Your task to perform on an android device: Search for sushi restaurants on Maps Image 0: 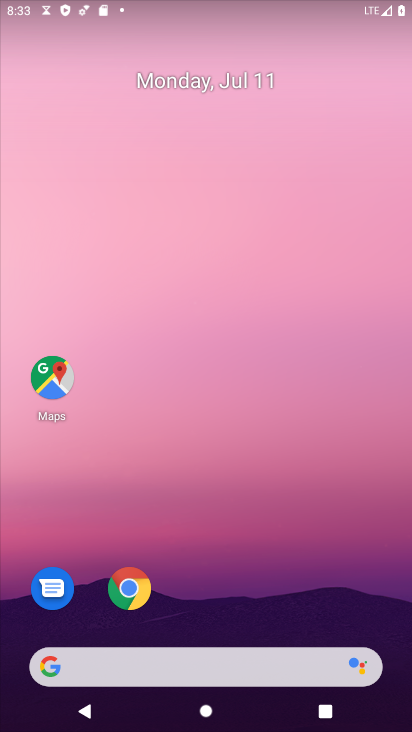
Step 0: click (73, 374)
Your task to perform on an android device: Search for sushi restaurants on Maps Image 1: 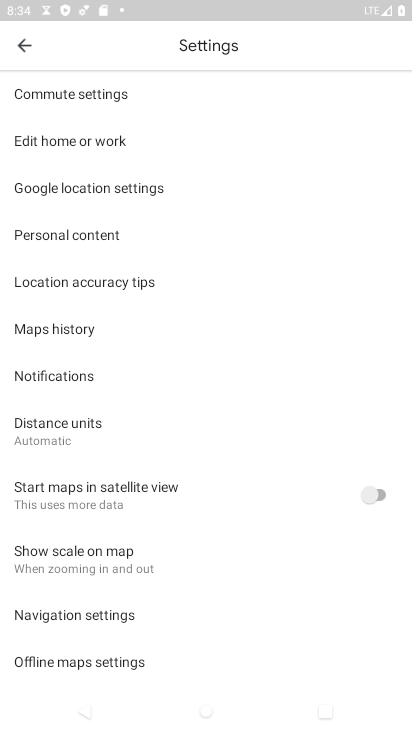
Step 1: press back button
Your task to perform on an android device: Search for sushi restaurants on Maps Image 2: 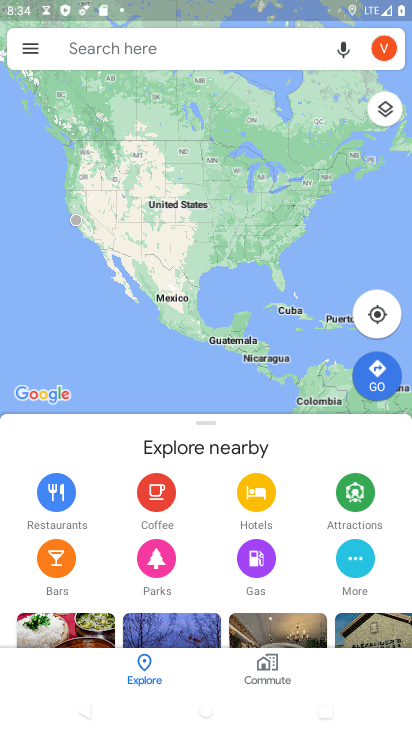
Step 2: click (184, 49)
Your task to perform on an android device: Search for sushi restaurants on Maps Image 3: 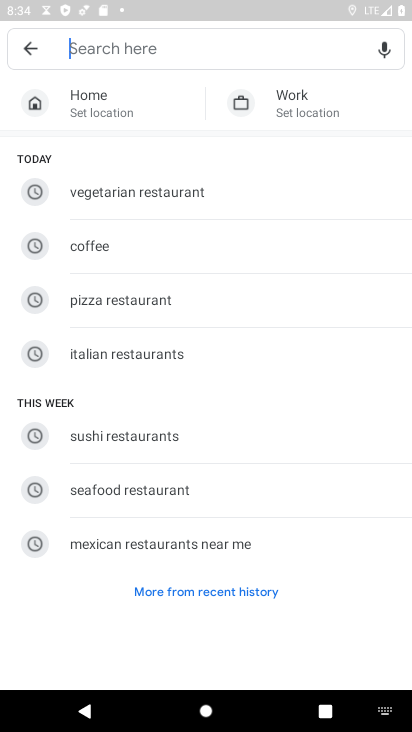
Step 3: click (90, 51)
Your task to perform on an android device: Search for sushi restaurants on Maps Image 4: 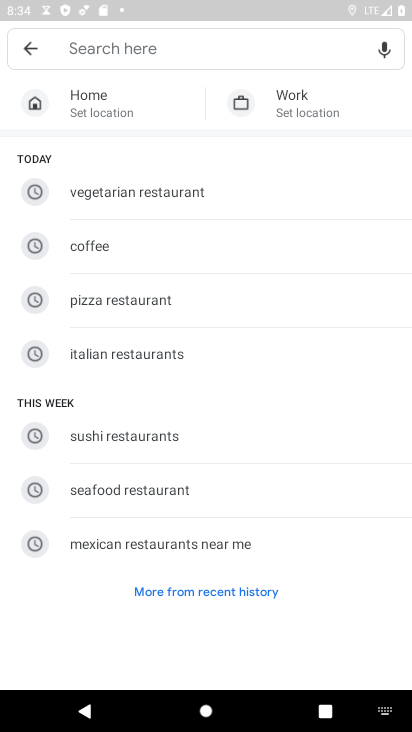
Step 4: type "sushi restaurants"
Your task to perform on an android device: Search for sushi restaurants on Maps Image 5: 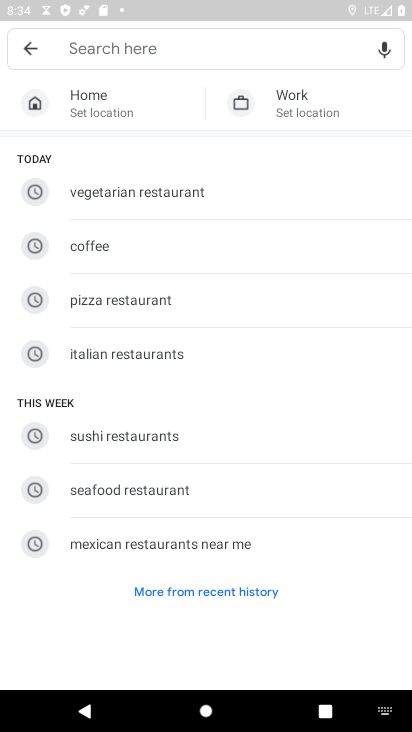
Step 5: click (90, 51)
Your task to perform on an android device: Search for sushi restaurants on Maps Image 6: 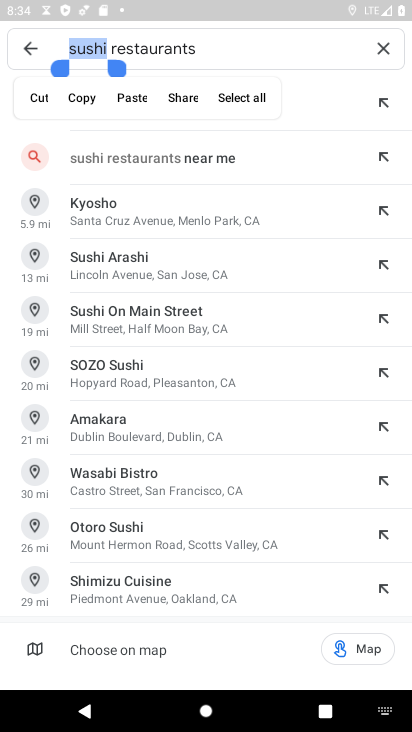
Step 6: press enter
Your task to perform on an android device: Search for sushi restaurants on Maps Image 7: 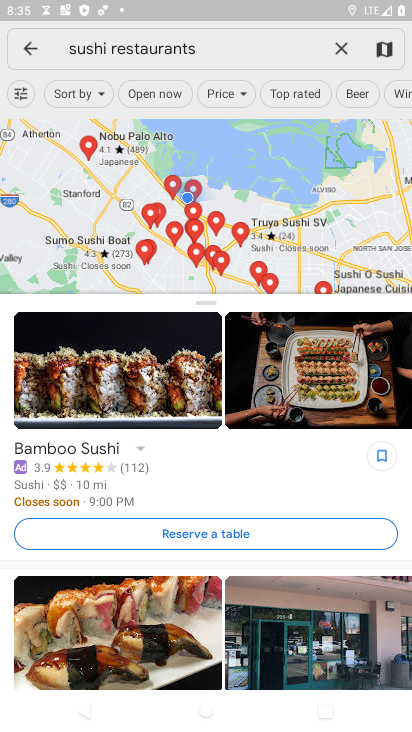
Step 7: task complete